Your task to perform on an android device: When is my next meeting? Image 0: 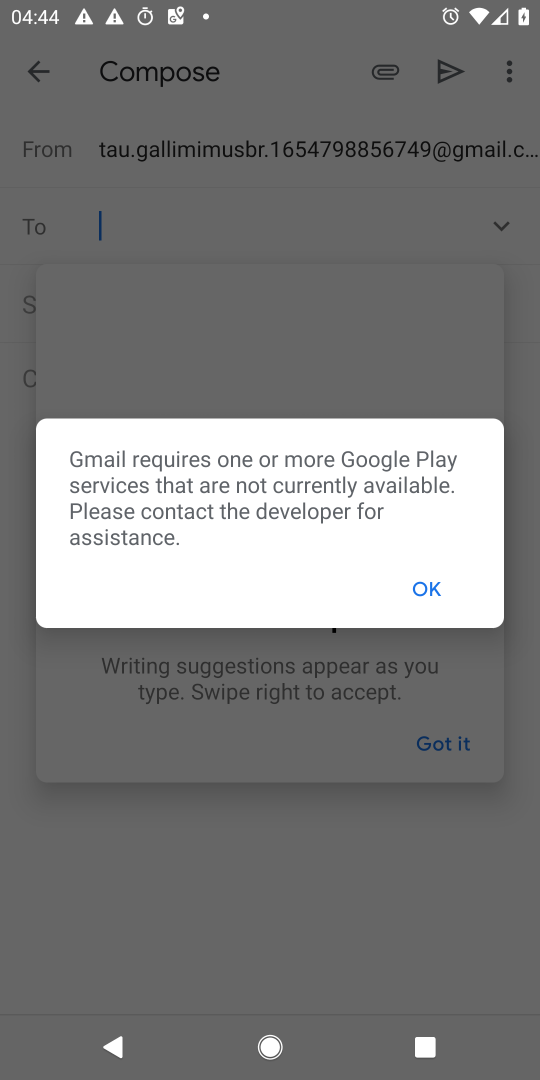
Step 0: press home button
Your task to perform on an android device: When is my next meeting? Image 1: 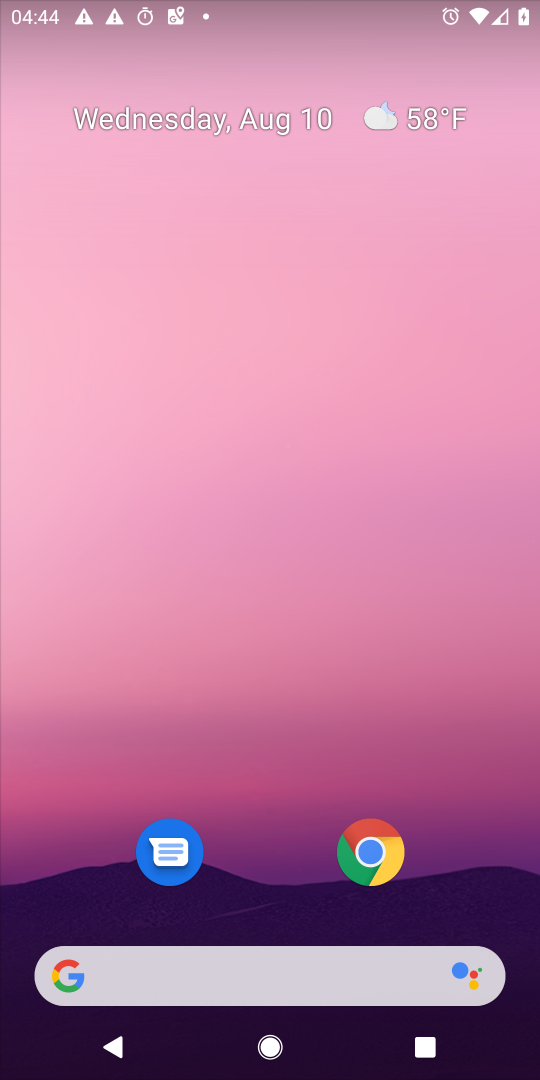
Step 1: drag from (279, 885) to (151, 216)
Your task to perform on an android device: When is my next meeting? Image 2: 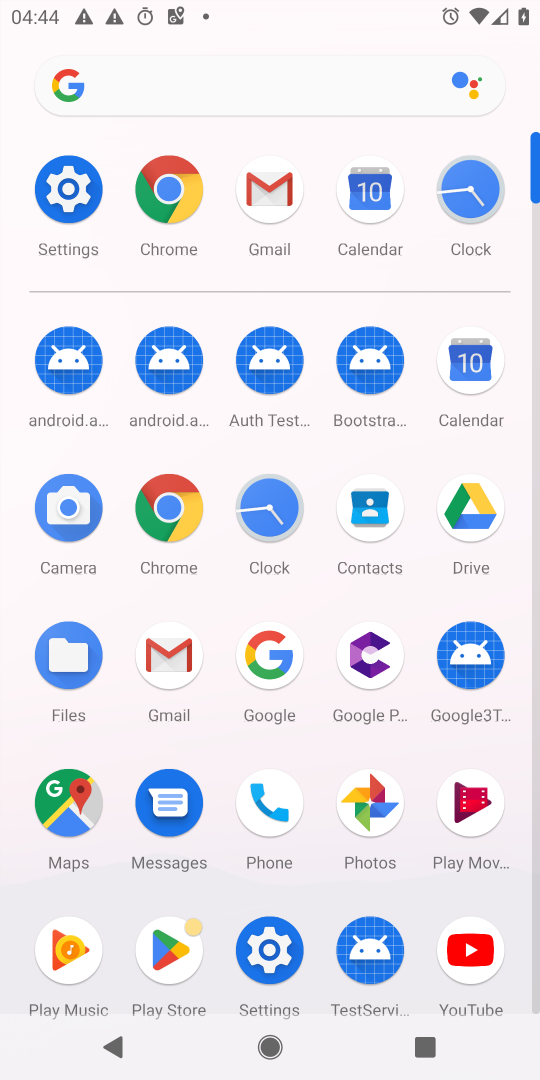
Step 2: click (464, 338)
Your task to perform on an android device: When is my next meeting? Image 3: 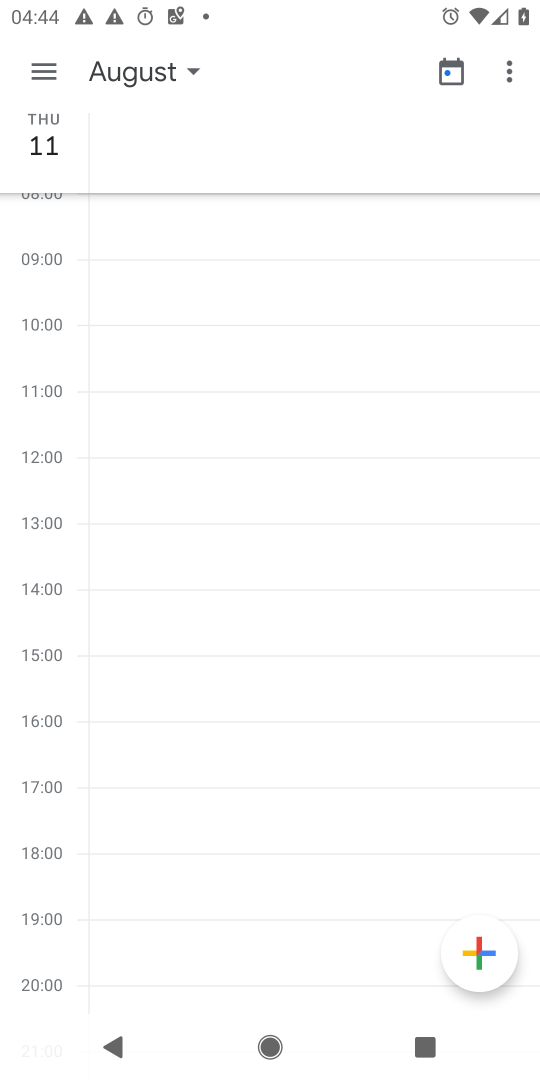
Step 3: click (24, 62)
Your task to perform on an android device: When is my next meeting? Image 4: 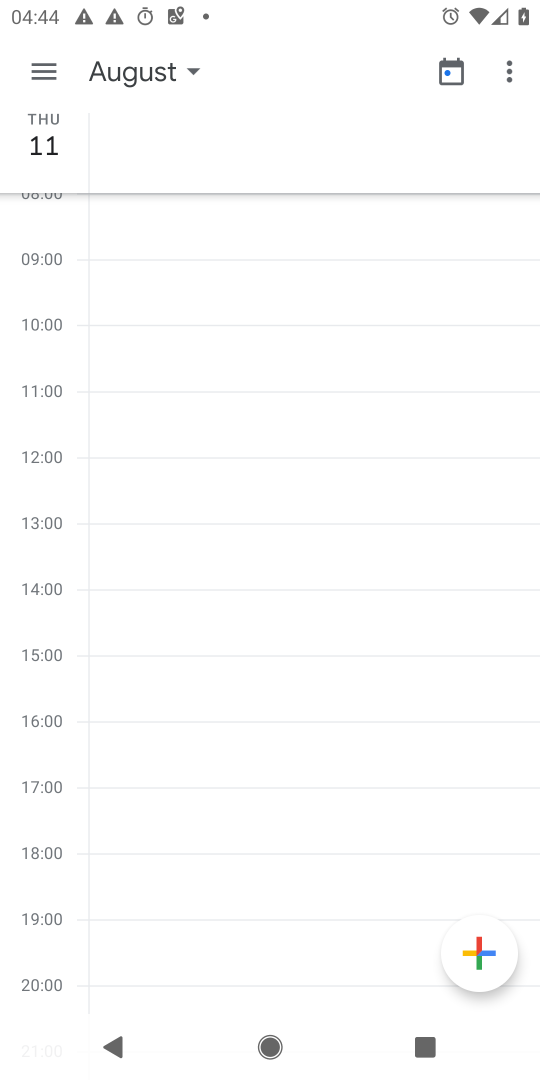
Step 4: click (40, 81)
Your task to perform on an android device: When is my next meeting? Image 5: 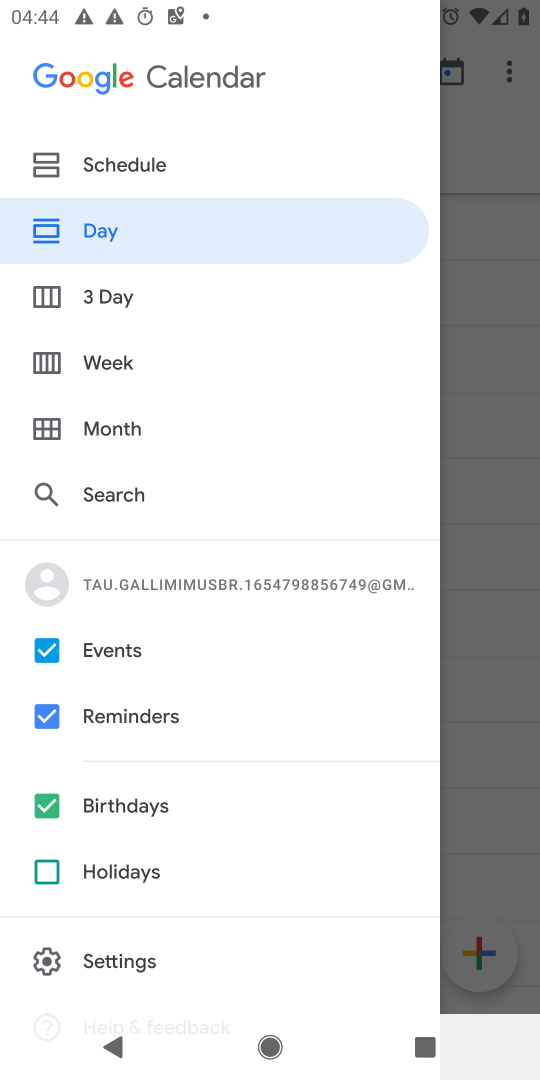
Step 5: click (120, 311)
Your task to perform on an android device: When is my next meeting? Image 6: 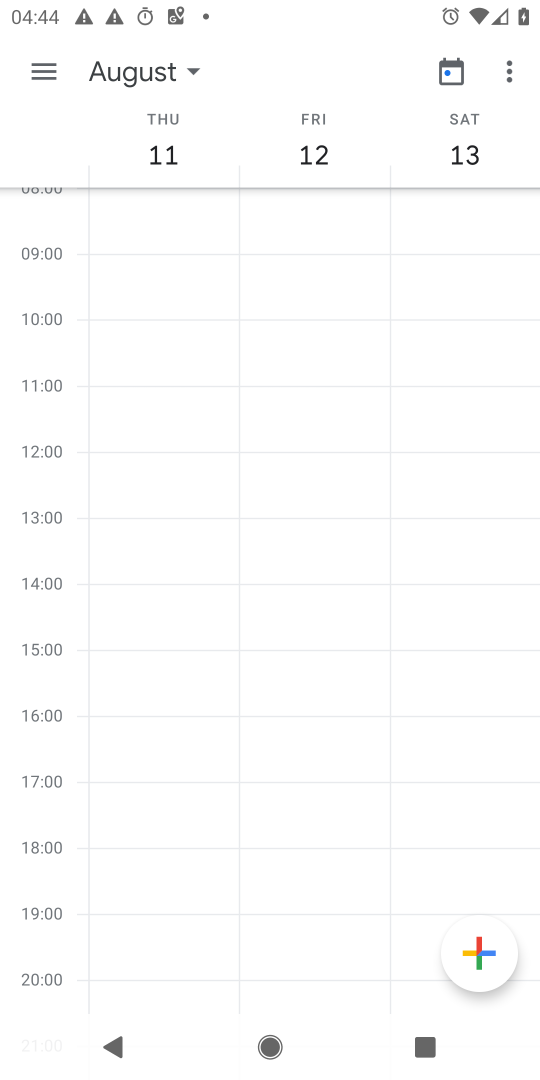
Step 6: task complete